Your task to perform on an android device: turn off improve location accuracy Image 0: 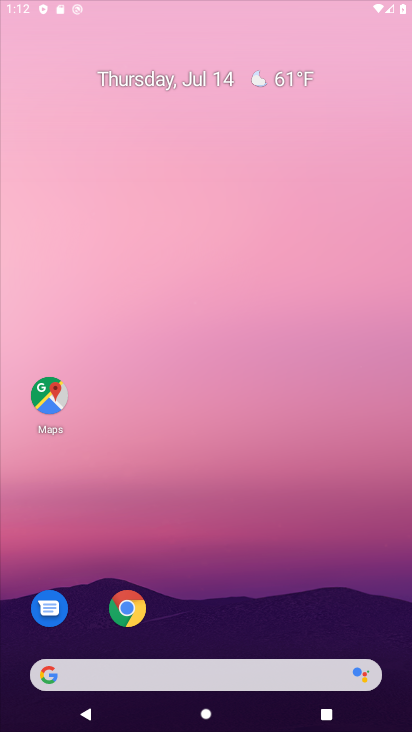
Step 0: drag from (205, 657) to (187, 268)
Your task to perform on an android device: turn off improve location accuracy Image 1: 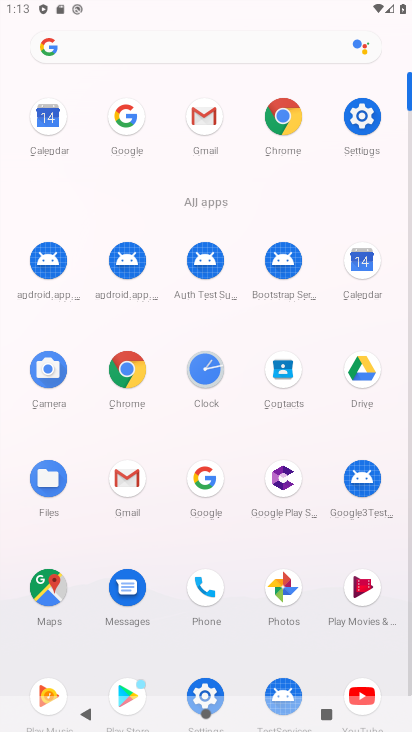
Step 1: click (364, 128)
Your task to perform on an android device: turn off improve location accuracy Image 2: 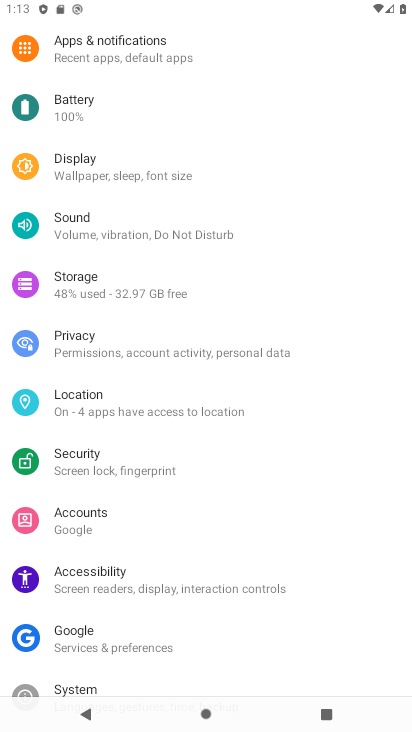
Step 2: click (75, 415)
Your task to perform on an android device: turn off improve location accuracy Image 3: 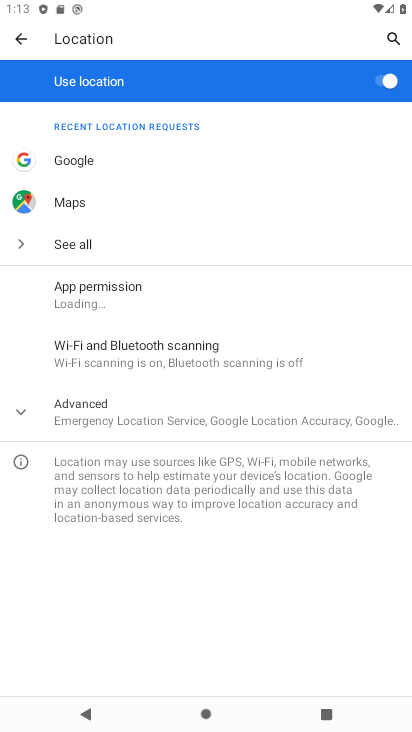
Step 3: click (74, 406)
Your task to perform on an android device: turn off improve location accuracy Image 4: 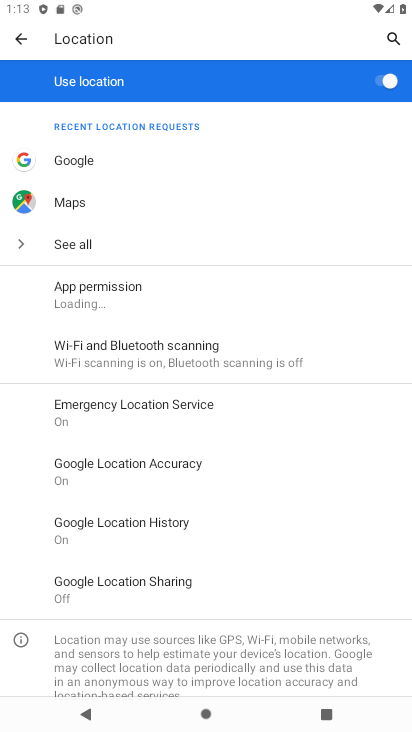
Step 4: click (147, 457)
Your task to perform on an android device: turn off improve location accuracy Image 5: 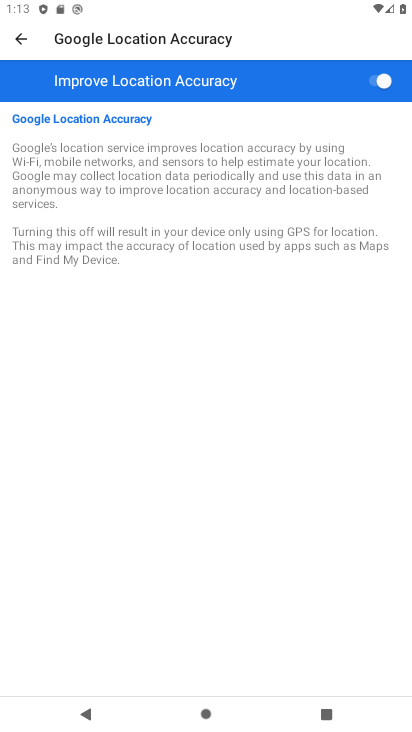
Step 5: click (370, 77)
Your task to perform on an android device: turn off improve location accuracy Image 6: 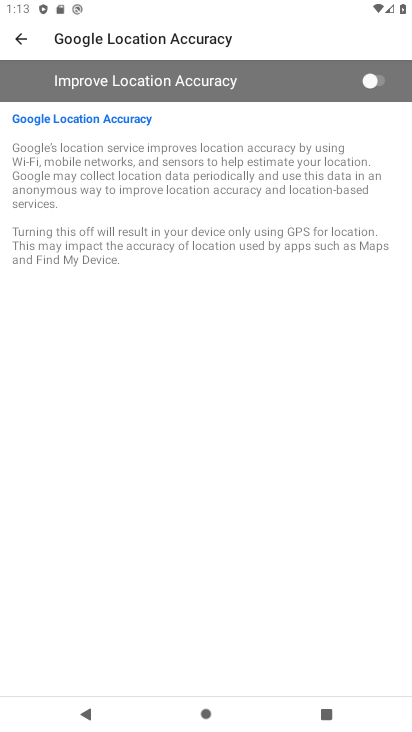
Step 6: task complete